Your task to perform on an android device: What's a good restaurant in Los Angeles? Image 0: 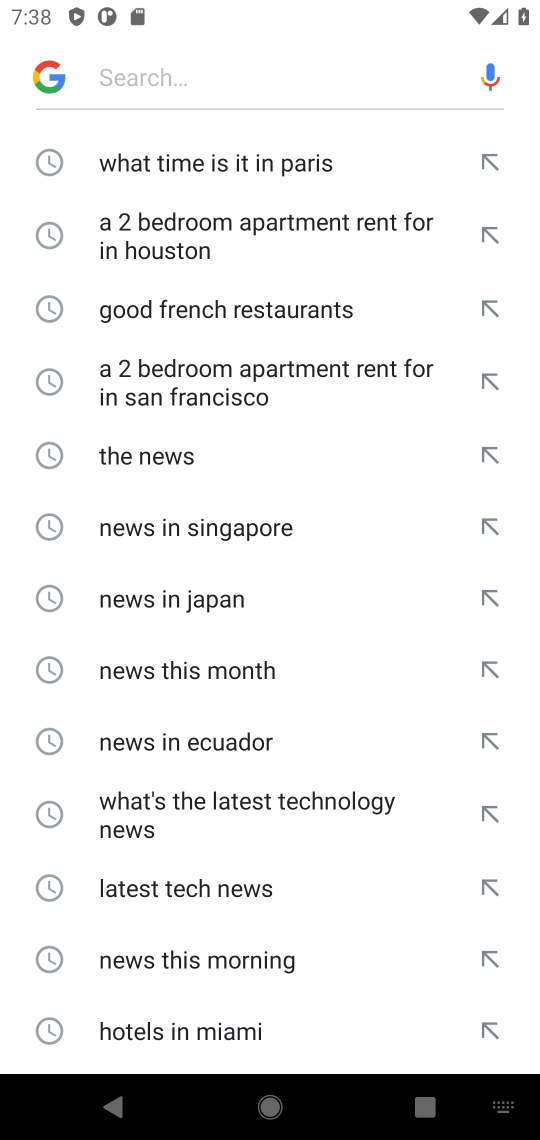
Step 0: press home button
Your task to perform on an android device: What's a good restaurant in Los Angeles? Image 1: 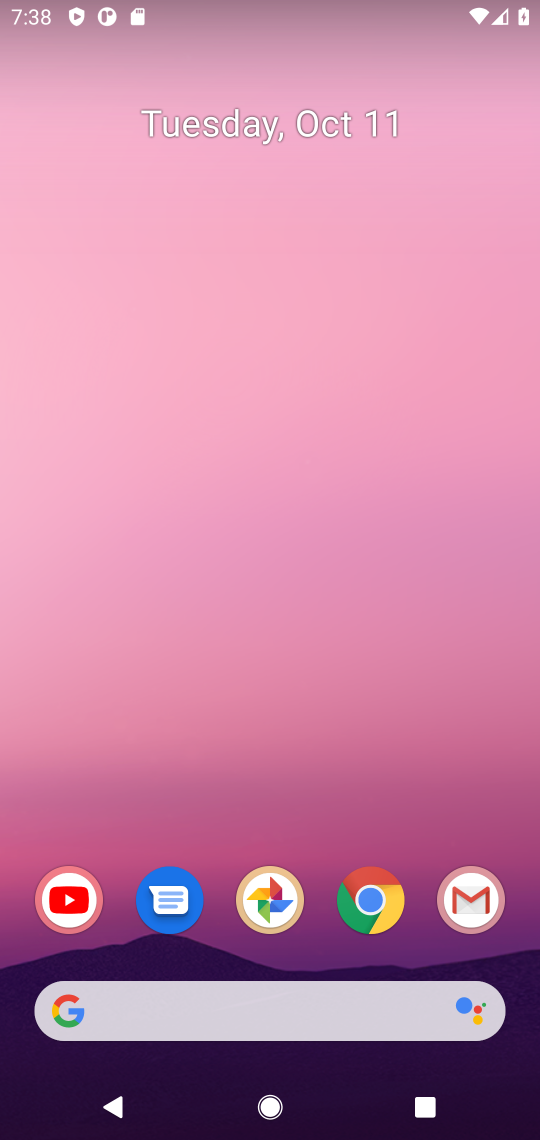
Step 1: click (361, 902)
Your task to perform on an android device: What's a good restaurant in Los Angeles? Image 2: 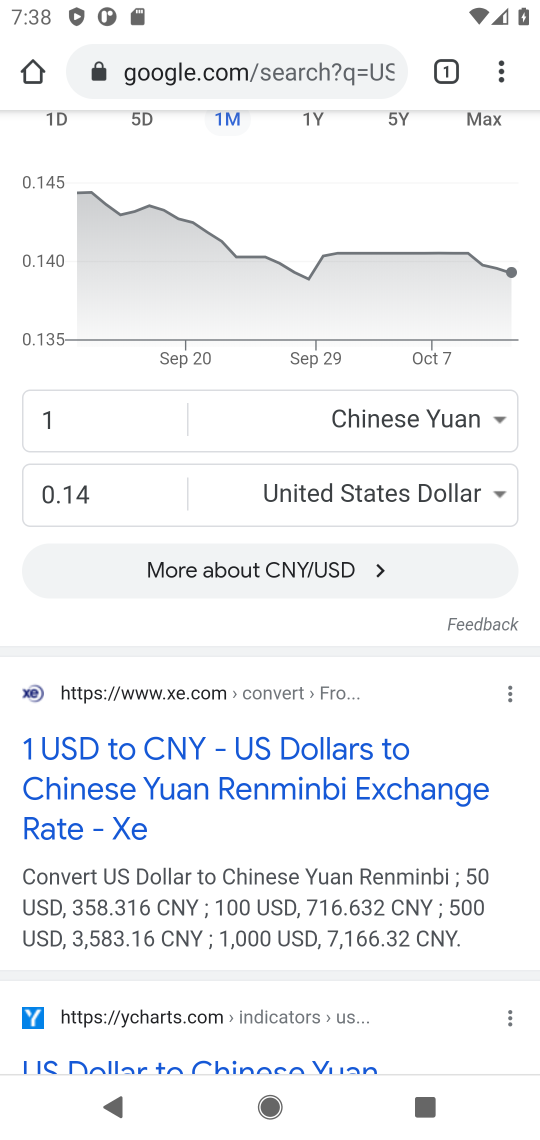
Step 2: click (315, 58)
Your task to perform on an android device: What's a good restaurant in Los Angeles? Image 3: 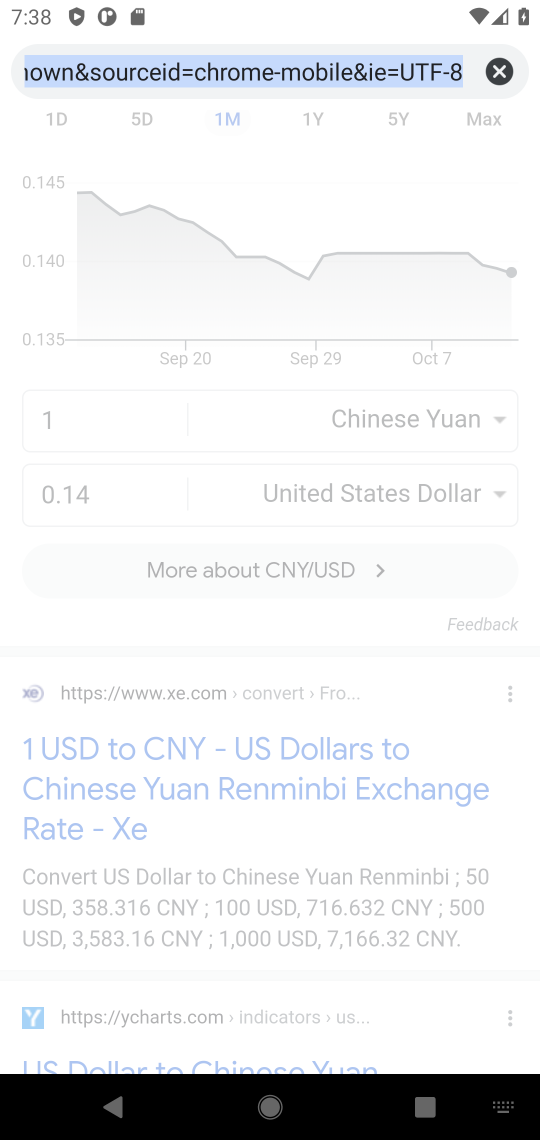
Step 3: type "good restaurant in Los Angeles"
Your task to perform on an android device: What's a good restaurant in Los Angeles? Image 4: 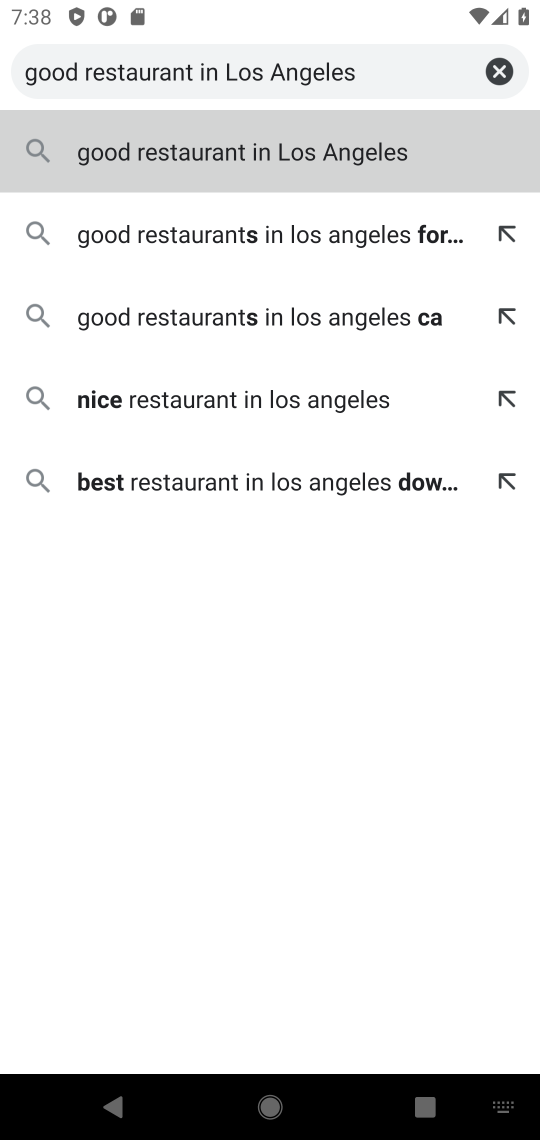
Step 4: click (381, 167)
Your task to perform on an android device: What's a good restaurant in Los Angeles? Image 5: 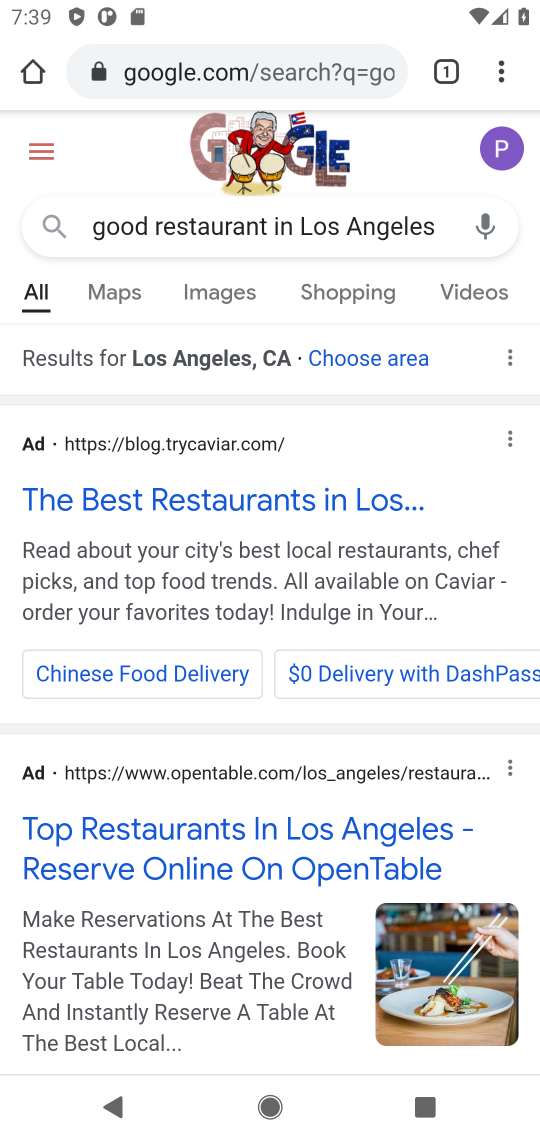
Step 5: task complete